Your task to perform on an android device: Open network settings Image 0: 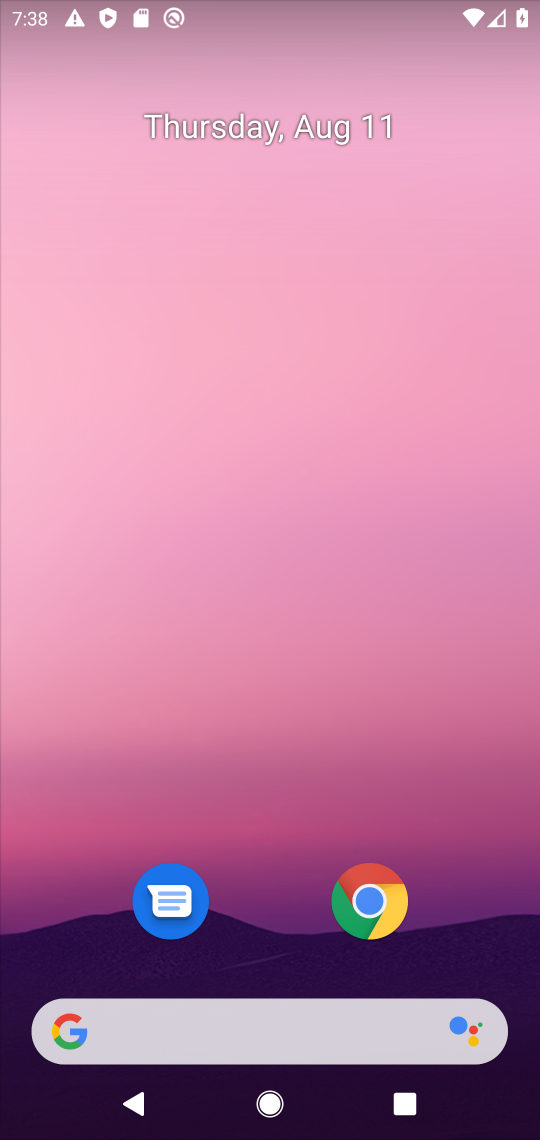
Step 0: drag from (313, 775) to (386, 200)
Your task to perform on an android device: Open network settings Image 1: 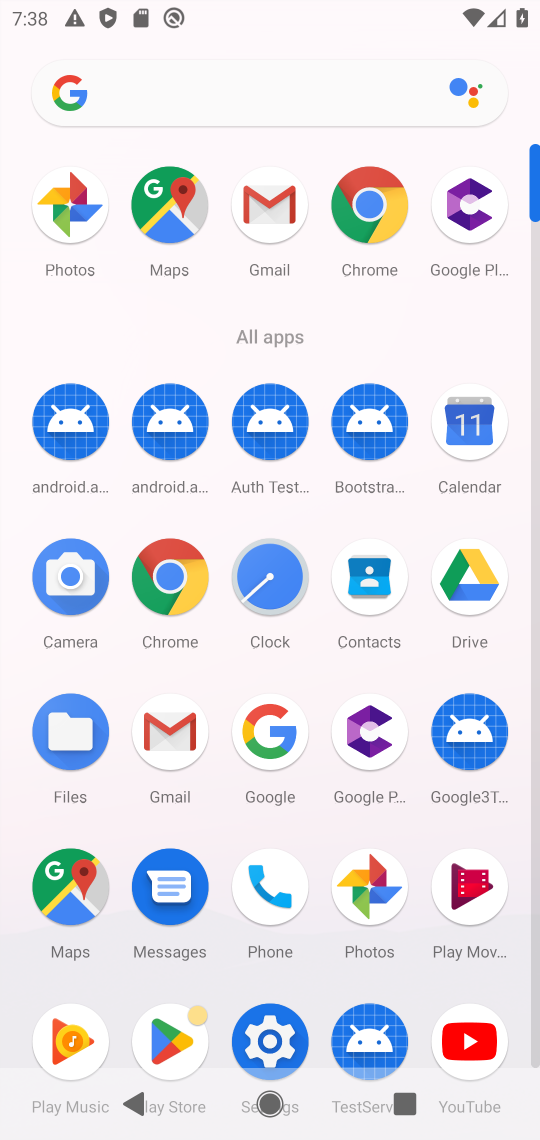
Step 1: drag from (268, 979) to (325, 997)
Your task to perform on an android device: Open network settings Image 2: 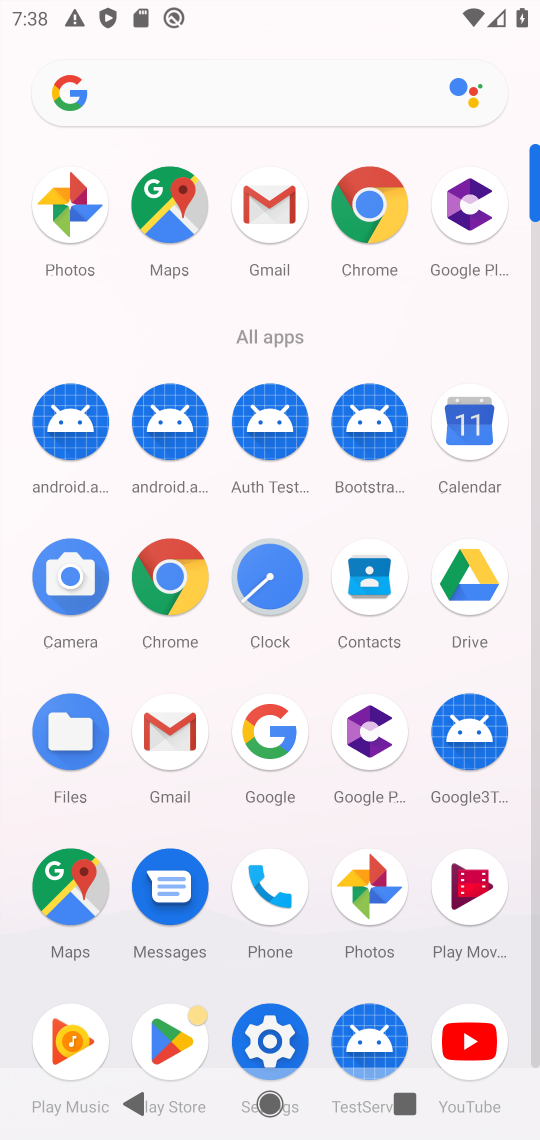
Step 2: click (267, 1026)
Your task to perform on an android device: Open network settings Image 3: 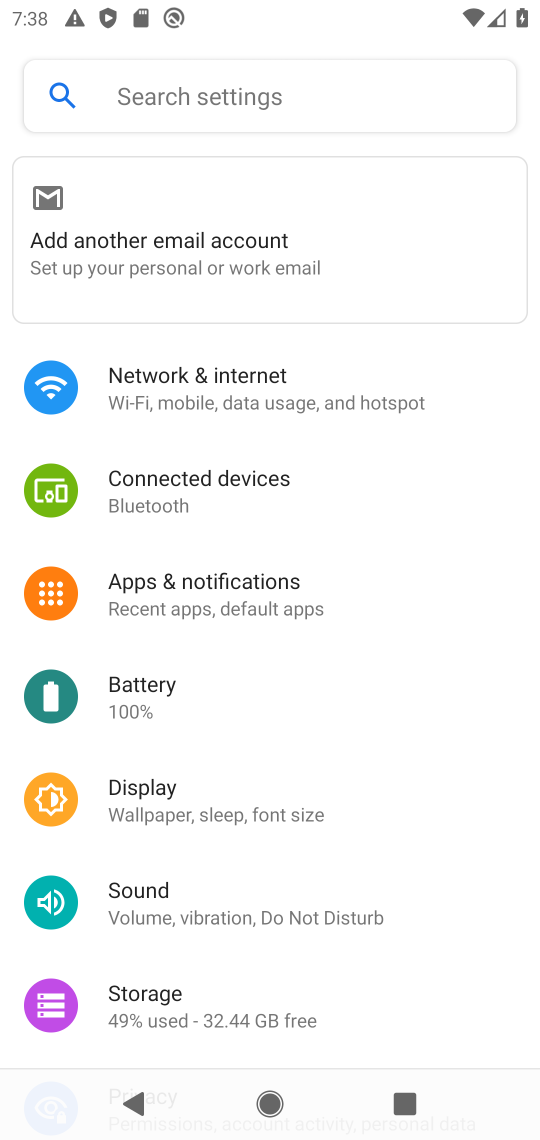
Step 3: click (217, 403)
Your task to perform on an android device: Open network settings Image 4: 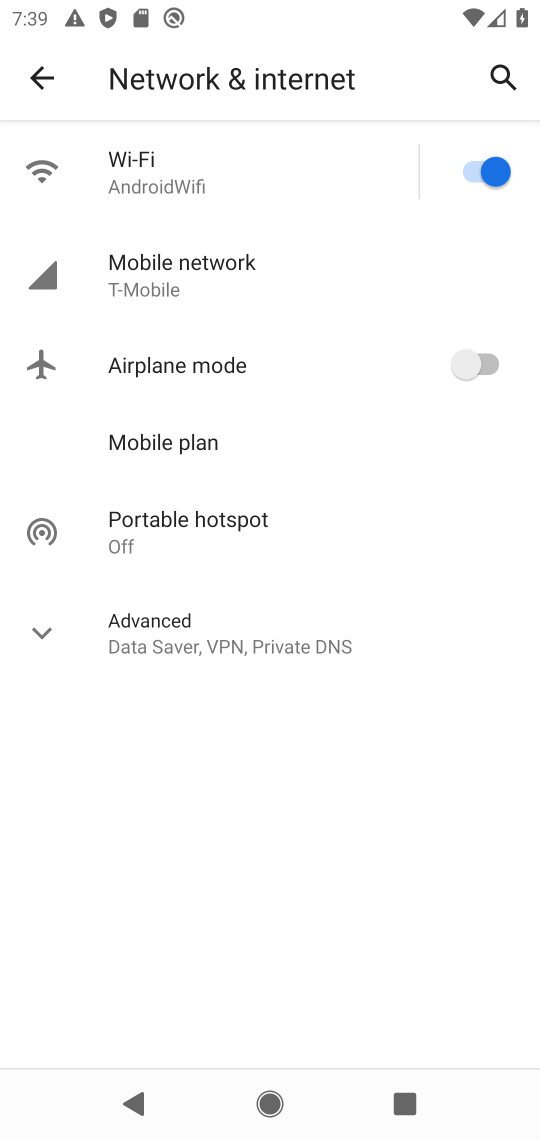
Step 4: task complete